Your task to perform on an android device: Open Google Chrome and open the bookmarks view Image 0: 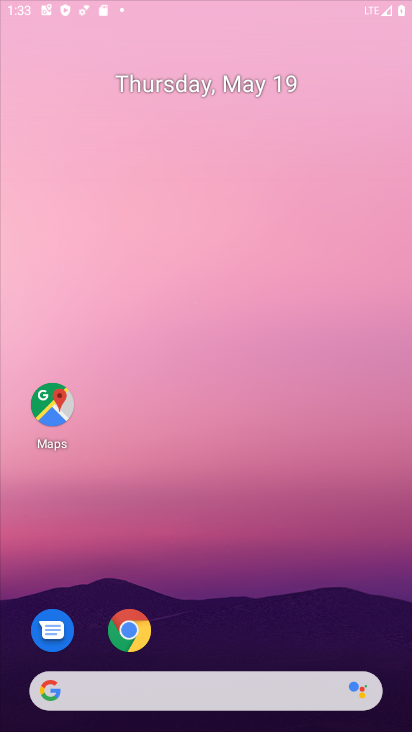
Step 0: drag from (217, 181) to (216, 87)
Your task to perform on an android device: Open Google Chrome and open the bookmarks view Image 1: 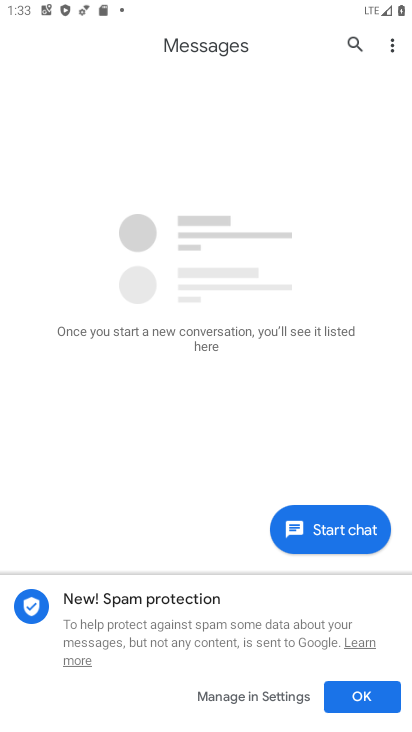
Step 1: press home button
Your task to perform on an android device: Open Google Chrome and open the bookmarks view Image 2: 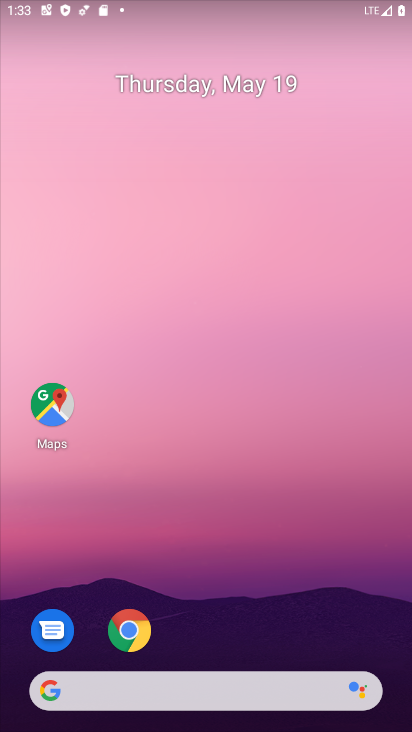
Step 2: drag from (176, 651) to (163, 92)
Your task to perform on an android device: Open Google Chrome and open the bookmarks view Image 3: 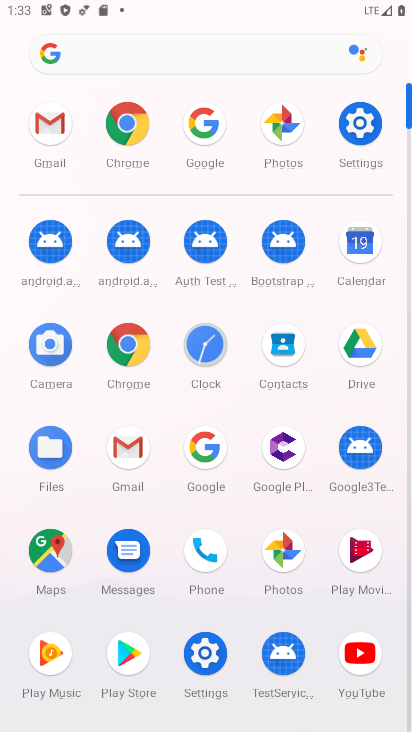
Step 3: click (124, 348)
Your task to perform on an android device: Open Google Chrome and open the bookmarks view Image 4: 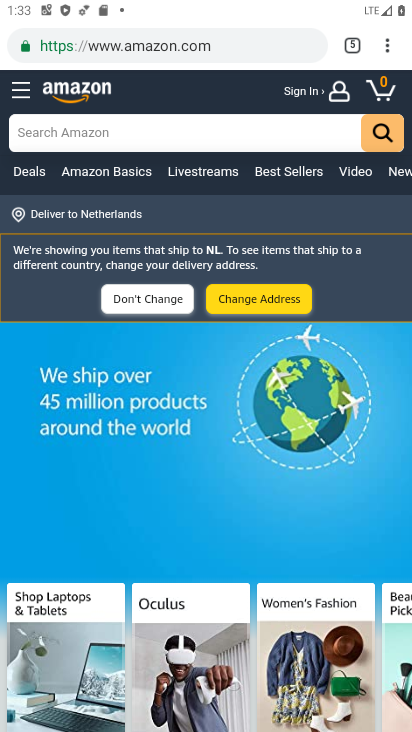
Step 4: click (388, 45)
Your task to perform on an android device: Open Google Chrome and open the bookmarks view Image 5: 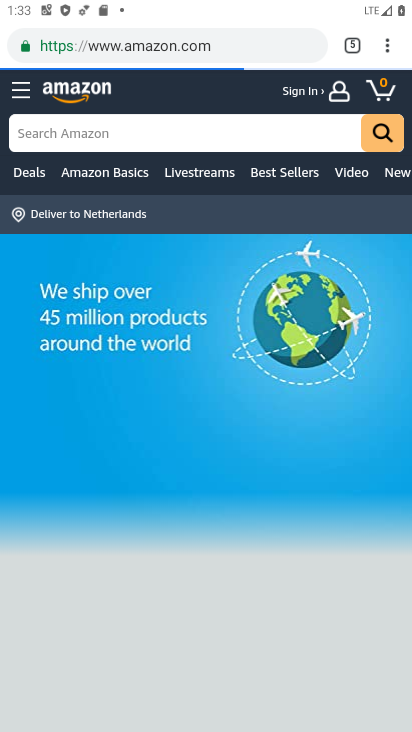
Step 5: task complete